Your task to perform on an android device: move an email to a new category in the gmail app Image 0: 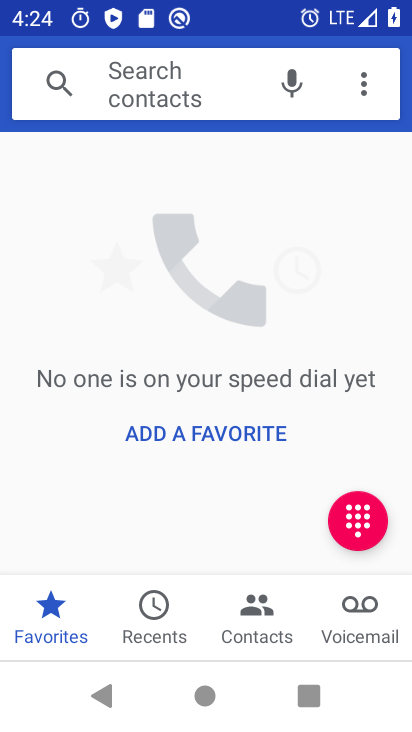
Step 0: press home button
Your task to perform on an android device: move an email to a new category in the gmail app Image 1: 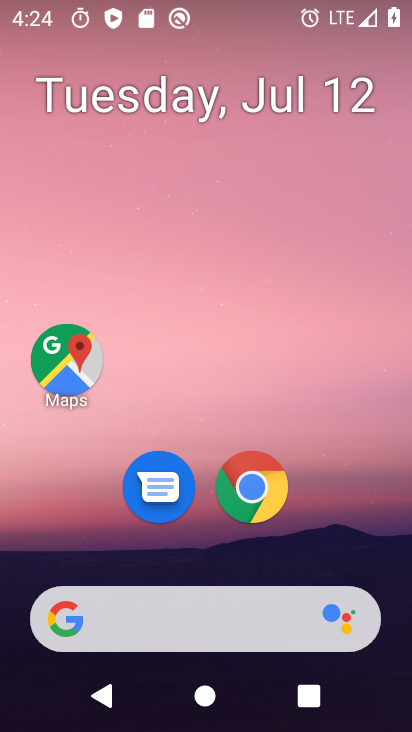
Step 1: drag from (225, 639) to (226, 109)
Your task to perform on an android device: move an email to a new category in the gmail app Image 2: 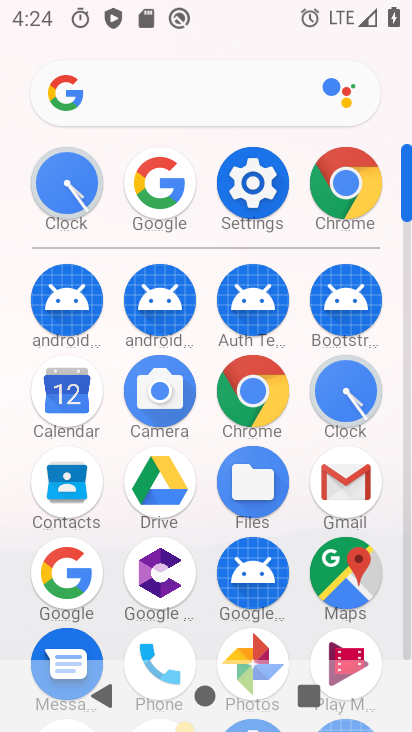
Step 2: click (352, 491)
Your task to perform on an android device: move an email to a new category in the gmail app Image 3: 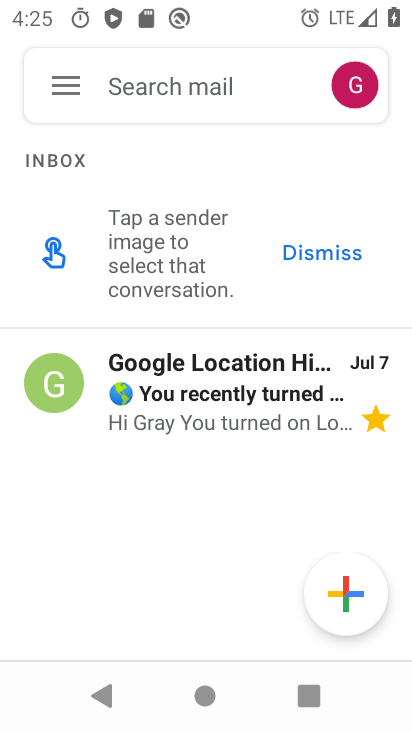
Step 3: click (177, 385)
Your task to perform on an android device: move an email to a new category in the gmail app Image 4: 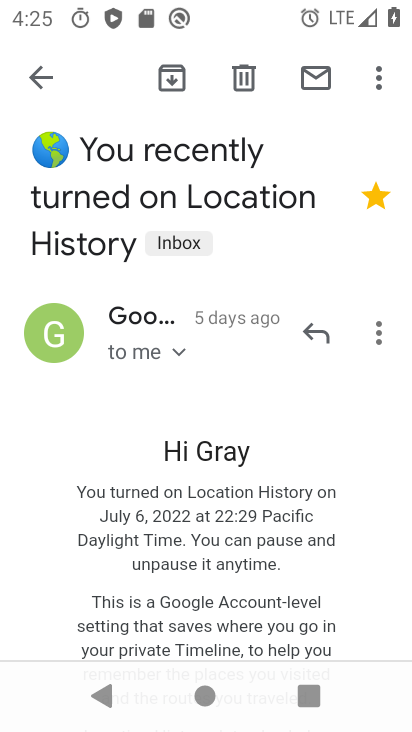
Step 4: click (385, 85)
Your task to perform on an android device: move an email to a new category in the gmail app Image 5: 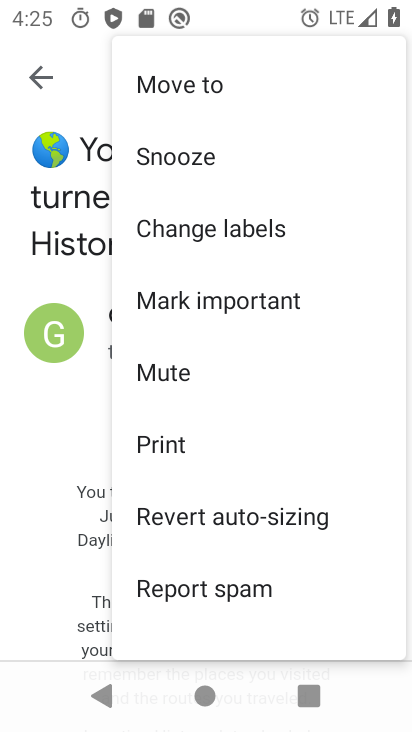
Step 5: click (244, 234)
Your task to perform on an android device: move an email to a new category in the gmail app Image 6: 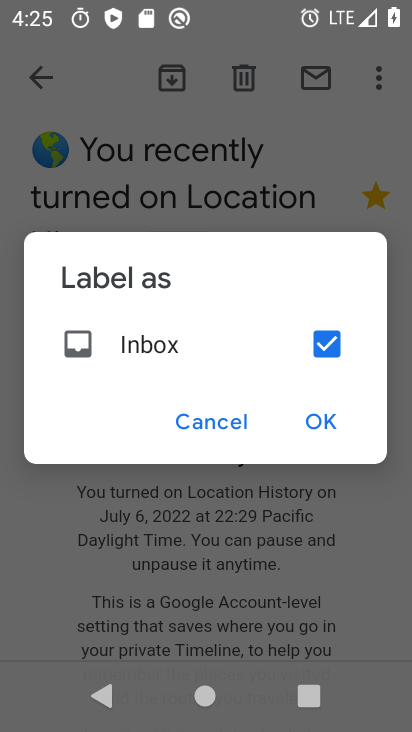
Step 6: click (319, 433)
Your task to perform on an android device: move an email to a new category in the gmail app Image 7: 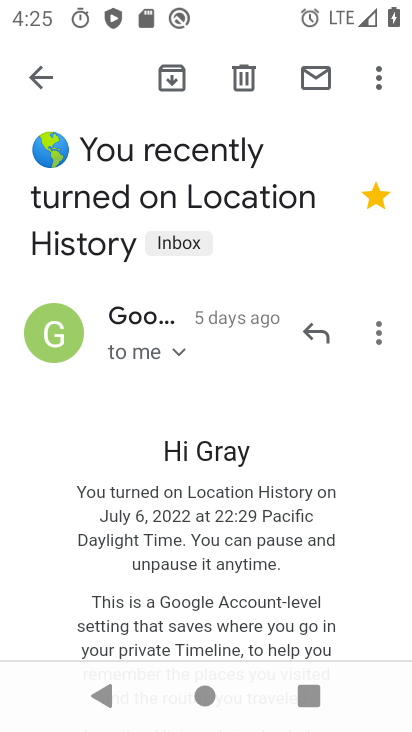
Step 7: task complete